Your task to perform on an android device: See recent photos Image 0: 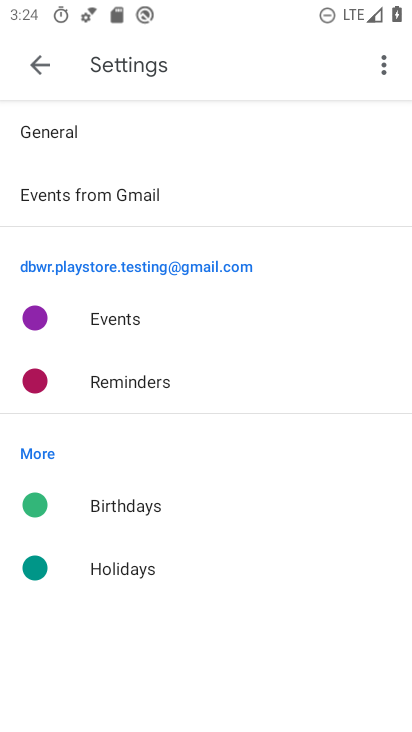
Step 0: press home button
Your task to perform on an android device: See recent photos Image 1: 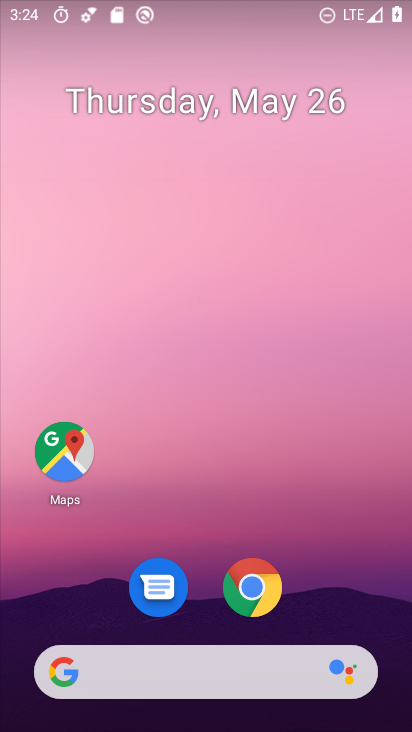
Step 1: drag from (321, 556) to (285, 83)
Your task to perform on an android device: See recent photos Image 2: 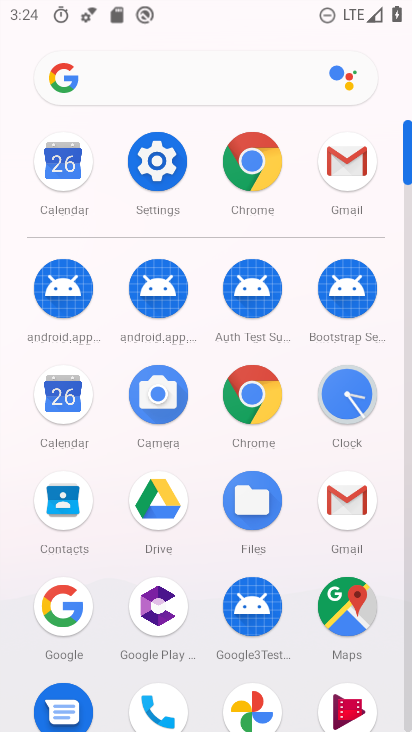
Step 2: drag from (197, 635) to (198, 239)
Your task to perform on an android device: See recent photos Image 3: 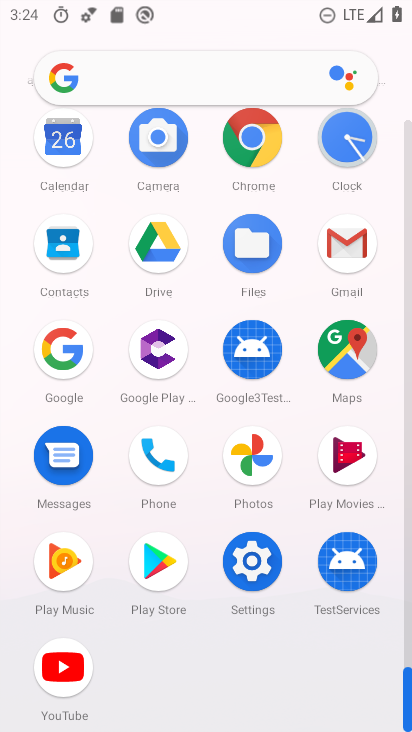
Step 3: click (244, 467)
Your task to perform on an android device: See recent photos Image 4: 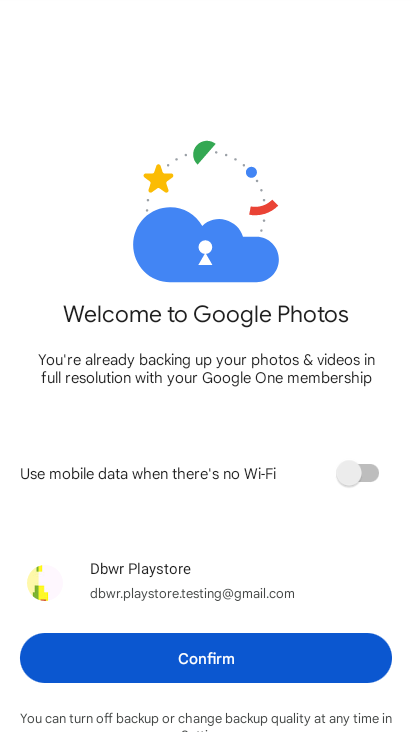
Step 4: click (199, 653)
Your task to perform on an android device: See recent photos Image 5: 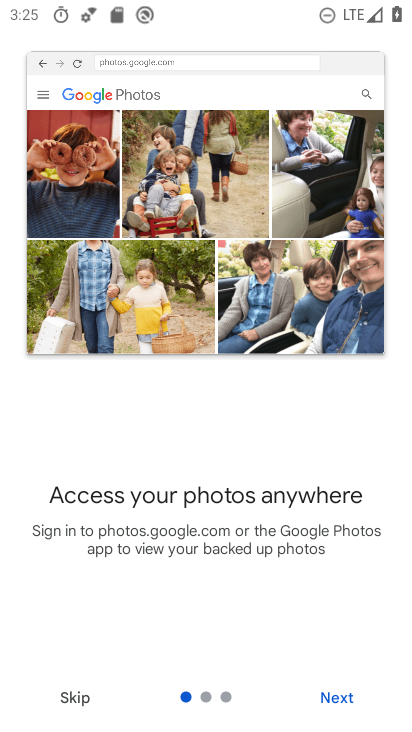
Step 5: click (68, 698)
Your task to perform on an android device: See recent photos Image 6: 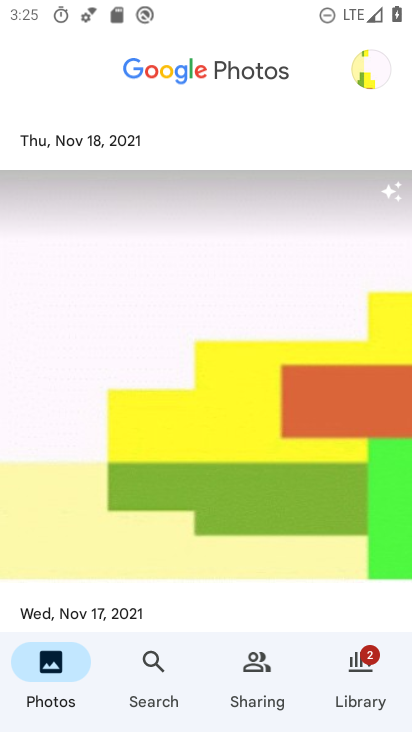
Step 6: task complete